Your task to perform on an android device: uninstall "Google Pay: Save, Pay, Manage" Image 0: 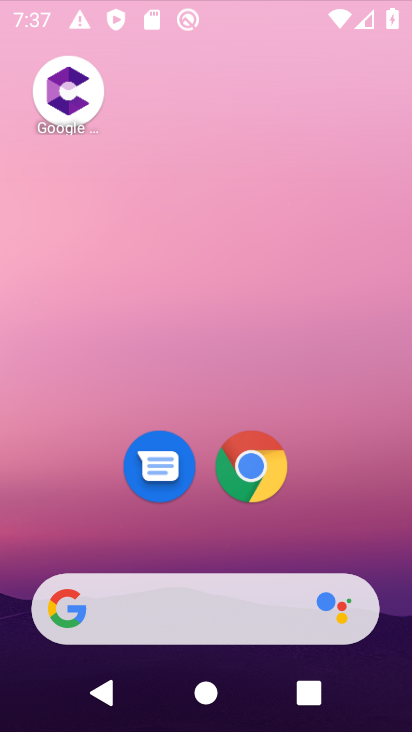
Step 0: drag from (362, 509) to (302, 11)
Your task to perform on an android device: uninstall "Google Pay: Save, Pay, Manage" Image 1: 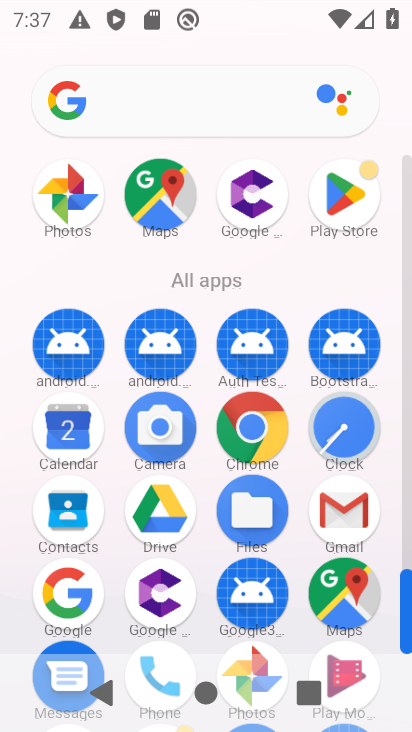
Step 1: drag from (291, 644) to (293, 294)
Your task to perform on an android device: uninstall "Google Pay: Save, Pay, Manage" Image 2: 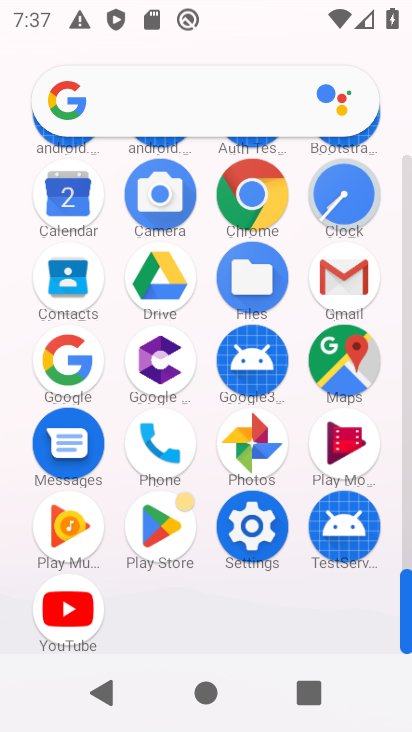
Step 2: click (155, 527)
Your task to perform on an android device: uninstall "Google Pay: Save, Pay, Manage" Image 3: 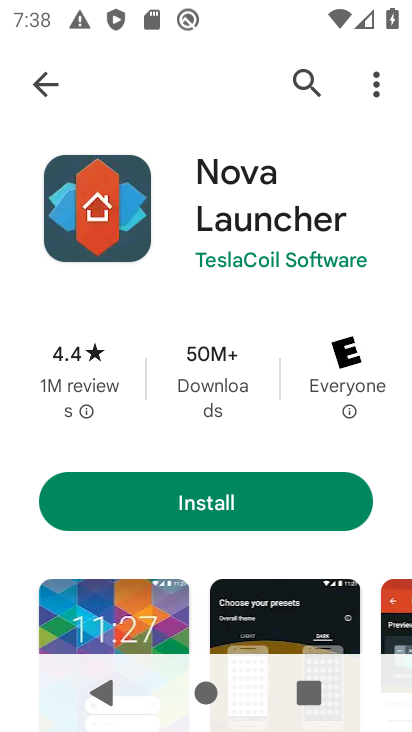
Step 3: click (311, 83)
Your task to perform on an android device: uninstall "Google Pay: Save, Pay, Manage" Image 4: 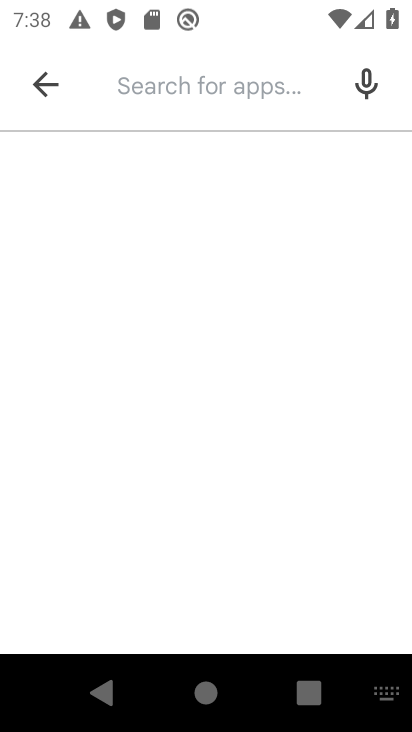
Step 4: type "Google Pay: Save, Pay, manage"
Your task to perform on an android device: uninstall "Google Pay: Save, Pay, Manage" Image 5: 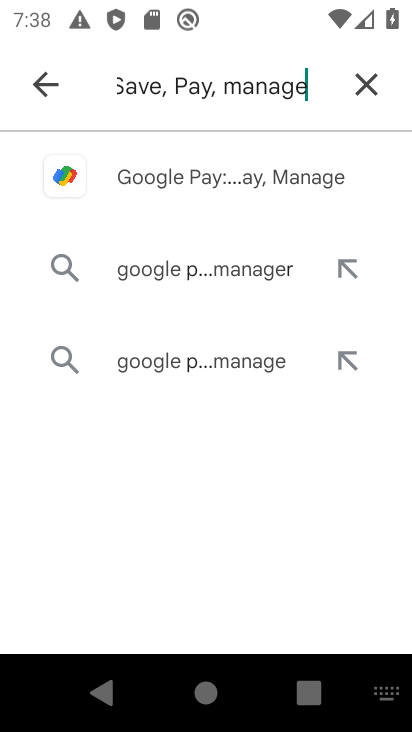
Step 5: click (238, 176)
Your task to perform on an android device: uninstall "Google Pay: Save, Pay, Manage" Image 6: 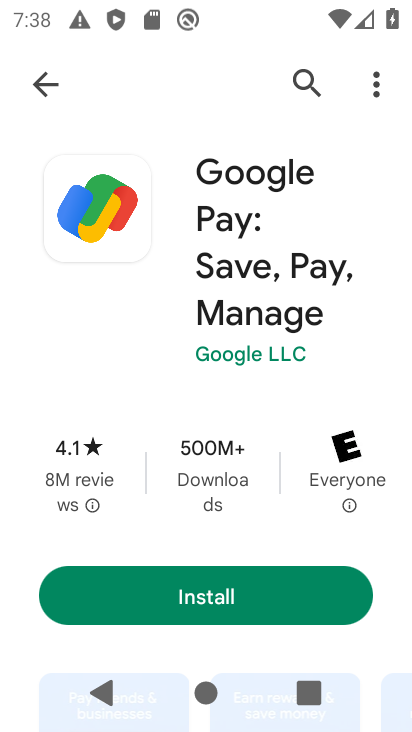
Step 6: task complete